Your task to perform on an android device: turn off javascript in the chrome app Image 0: 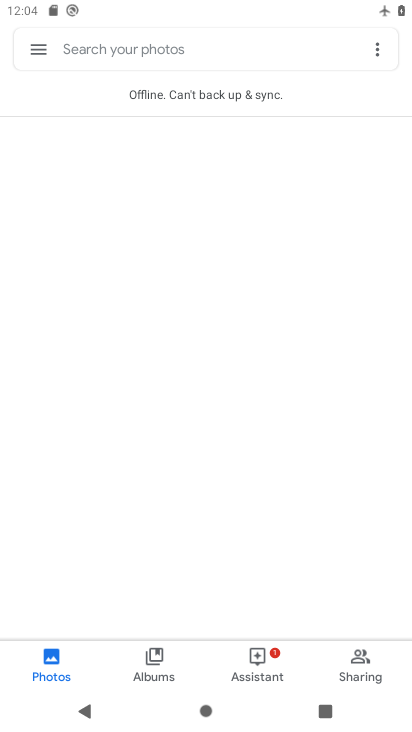
Step 0: press home button
Your task to perform on an android device: turn off javascript in the chrome app Image 1: 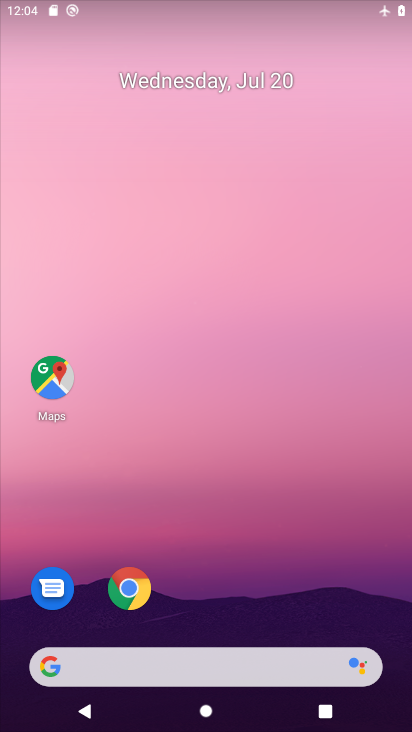
Step 1: drag from (262, 634) to (250, 249)
Your task to perform on an android device: turn off javascript in the chrome app Image 2: 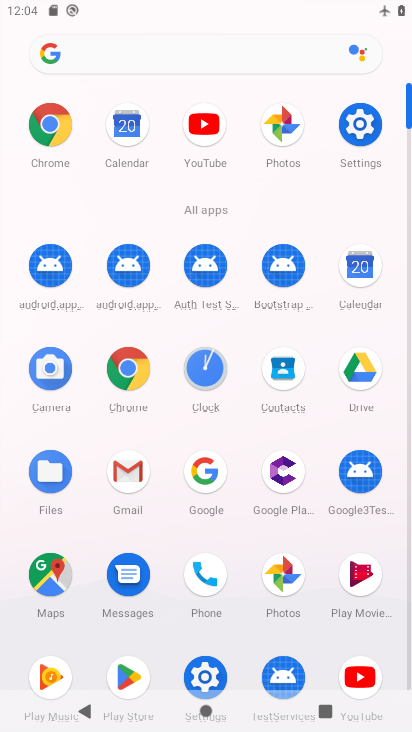
Step 2: click (61, 113)
Your task to perform on an android device: turn off javascript in the chrome app Image 3: 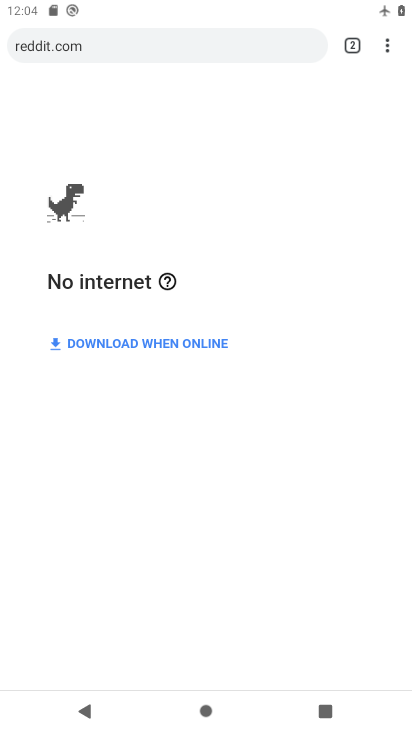
Step 3: click (392, 49)
Your task to perform on an android device: turn off javascript in the chrome app Image 4: 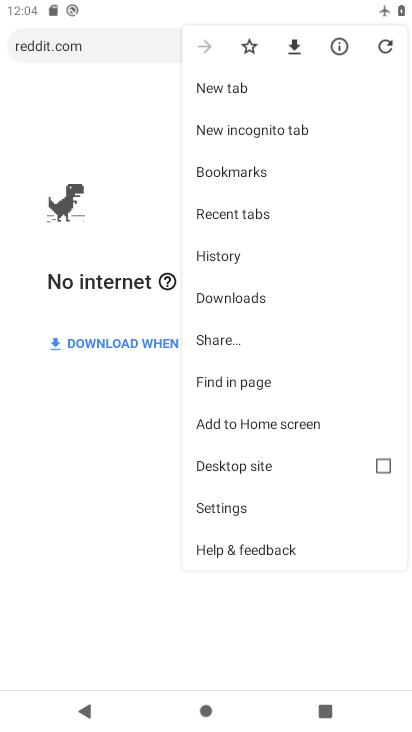
Step 4: click (232, 509)
Your task to perform on an android device: turn off javascript in the chrome app Image 5: 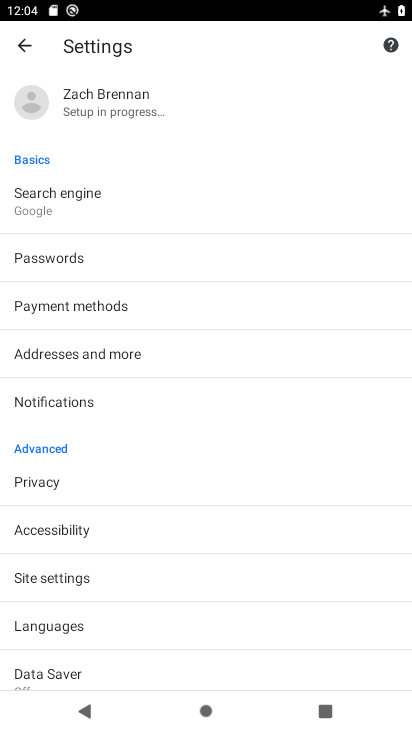
Step 5: drag from (145, 624) to (236, 288)
Your task to perform on an android device: turn off javascript in the chrome app Image 6: 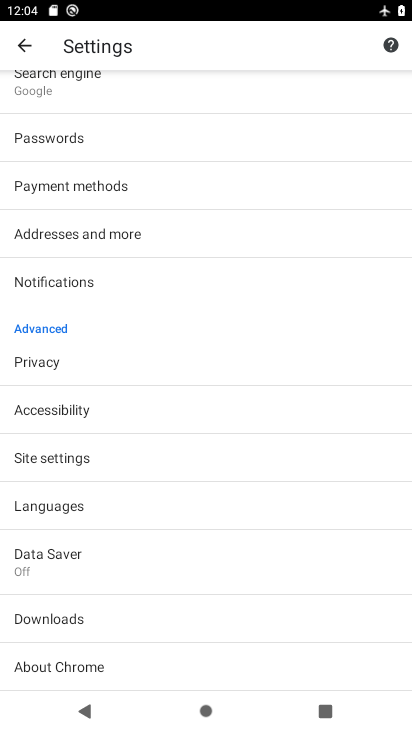
Step 6: click (87, 461)
Your task to perform on an android device: turn off javascript in the chrome app Image 7: 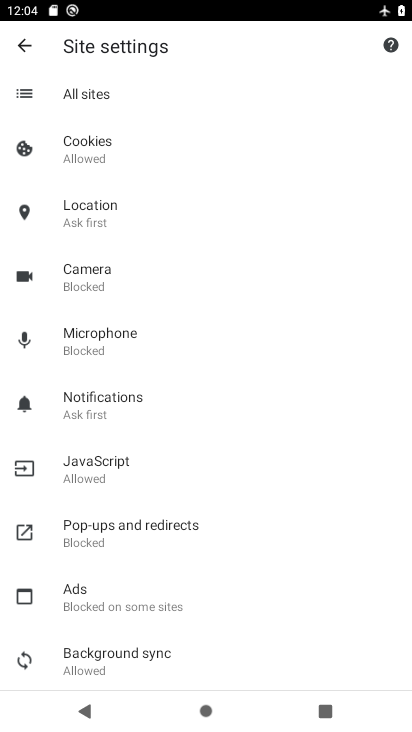
Step 7: click (130, 474)
Your task to perform on an android device: turn off javascript in the chrome app Image 8: 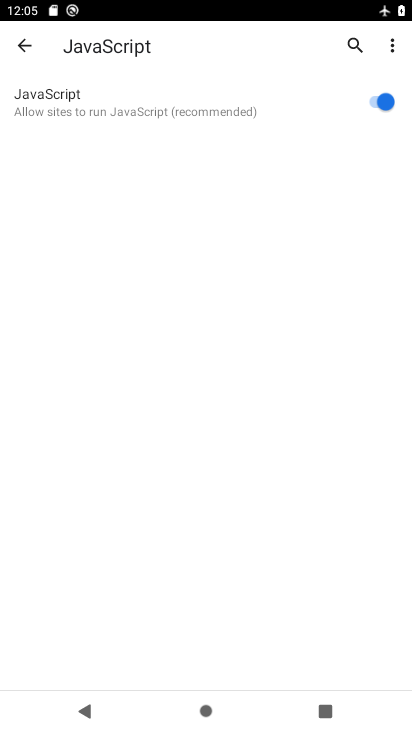
Step 8: click (392, 97)
Your task to perform on an android device: turn off javascript in the chrome app Image 9: 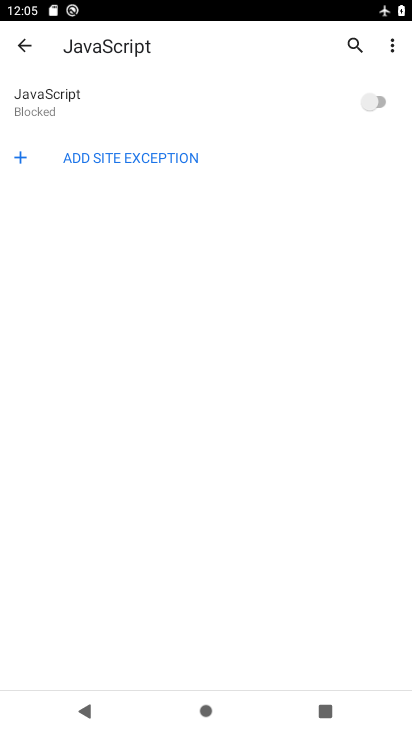
Step 9: task complete